Your task to perform on an android device: toggle javascript in the chrome app Image 0: 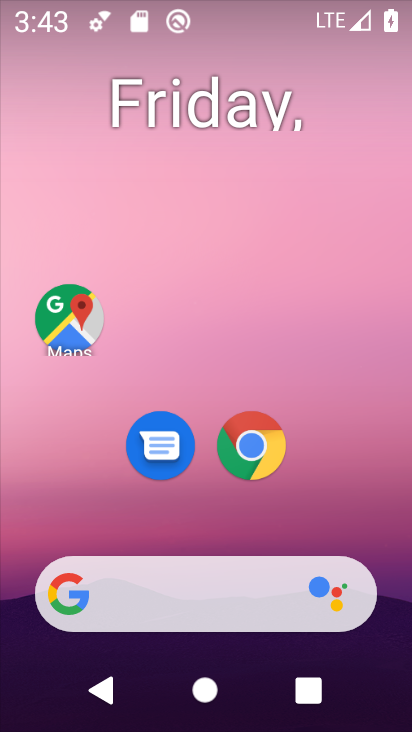
Step 0: drag from (402, 565) to (319, 170)
Your task to perform on an android device: toggle javascript in the chrome app Image 1: 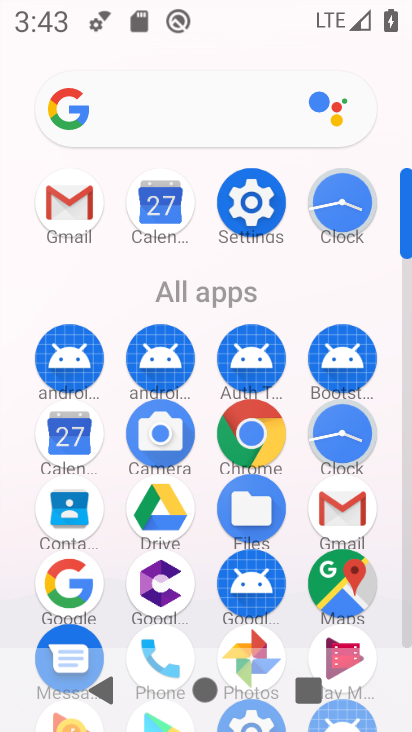
Step 1: click (258, 438)
Your task to perform on an android device: toggle javascript in the chrome app Image 2: 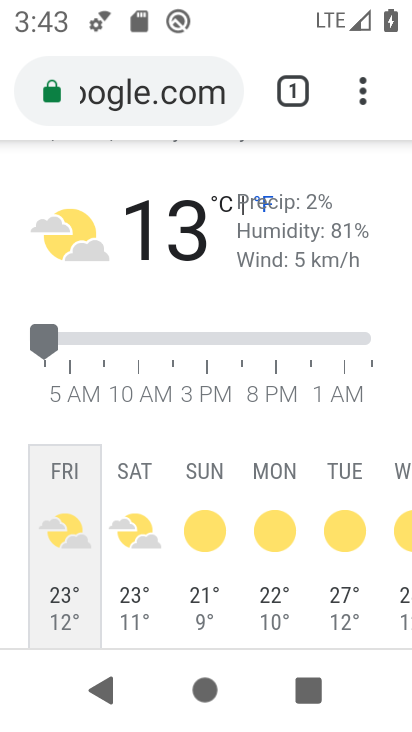
Step 2: click (363, 114)
Your task to perform on an android device: toggle javascript in the chrome app Image 3: 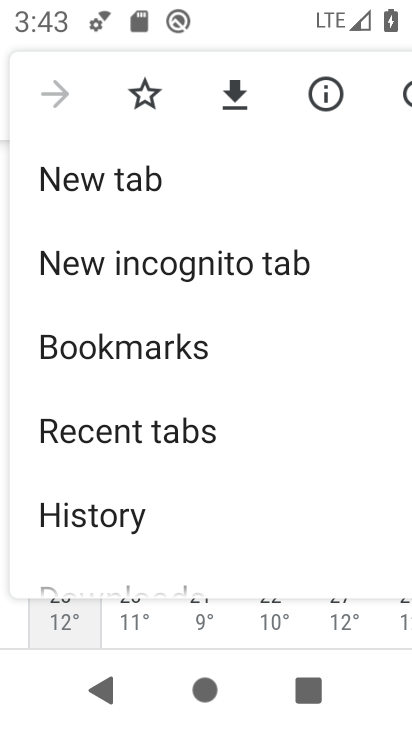
Step 3: drag from (136, 560) to (154, 143)
Your task to perform on an android device: toggle javascript in the chrome app Image 4: 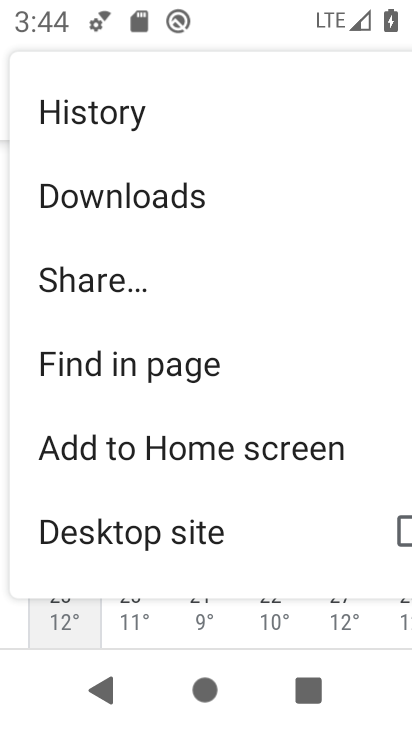
Step 4: drag from (163, 587) to (163, 193)
Your task to perform on an android device: toggle javascript in the chrome app Image 5: 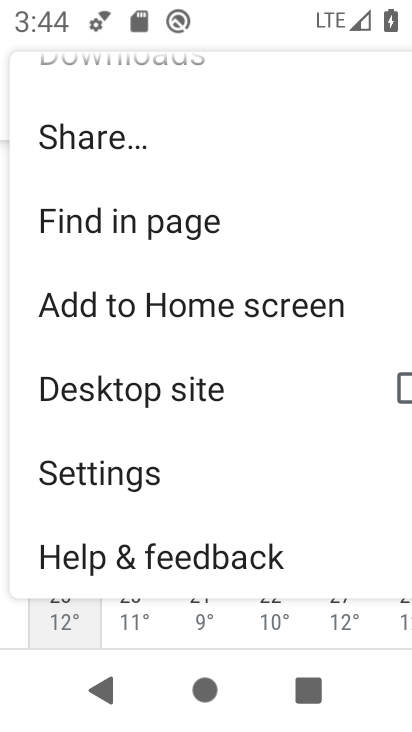
Step 5: click (167, 472)
Your task to perform on an android device: toggle javascript in the chrome app Image 6: 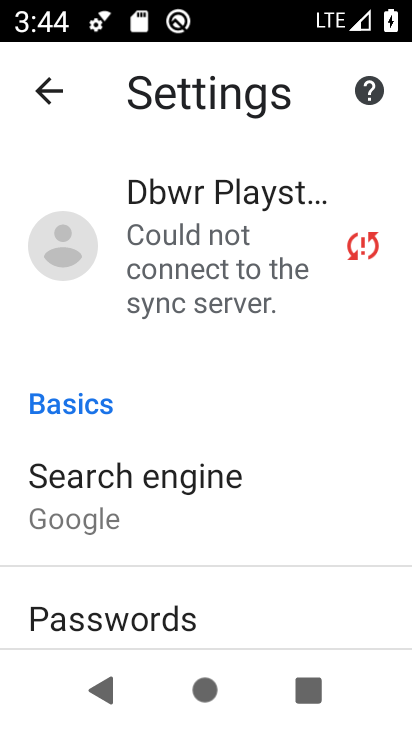
Step 6: drag from (184, 606) to (175, 210)
Your task to perform on an android device: toggle javascript in the chrome app Image 7: 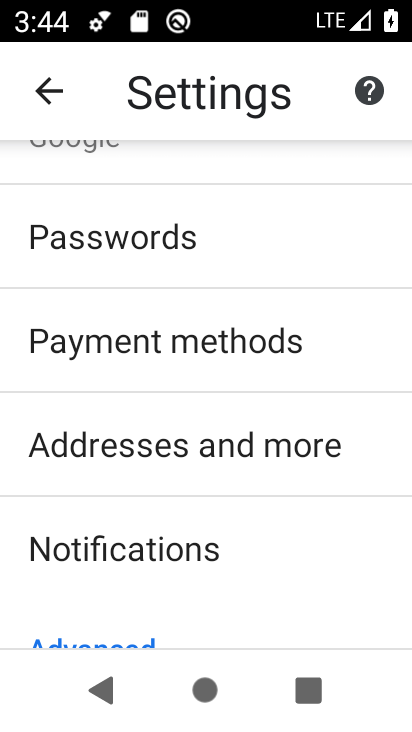
Step 7: drag from (157, 580) to (143, 217)
Your task to perform on an android device: toggle javascript in the chrome app Image 8: 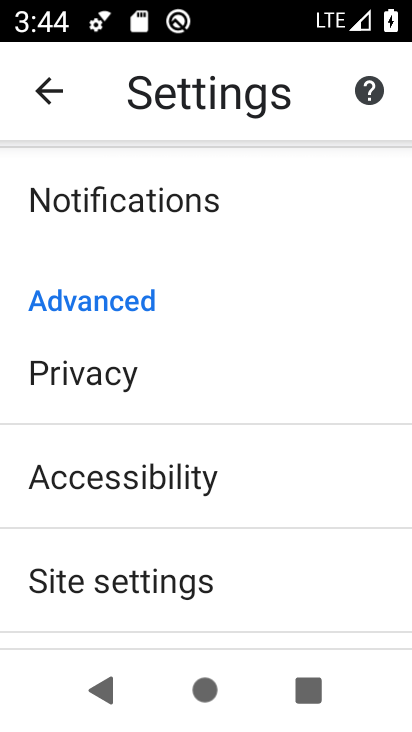
Step 8: click (153, 597)
Your task to perform on an android device: toggle javascript in the chrome app Image 9: 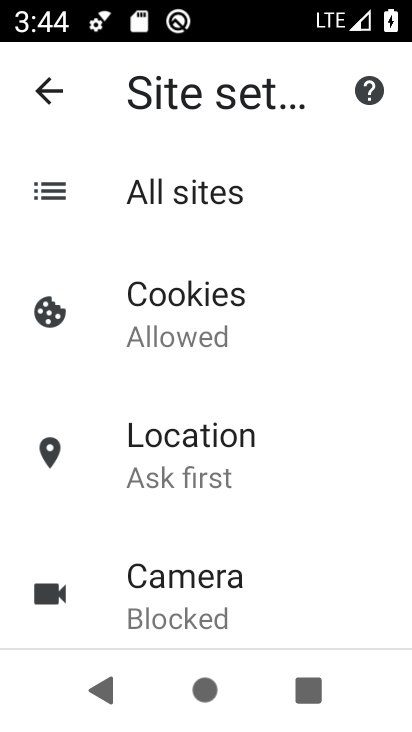
Step 9: drag from (187, 614) to (263, 236)
Your task to perform on an android device: toggle javascript in the chrome app Image 10: 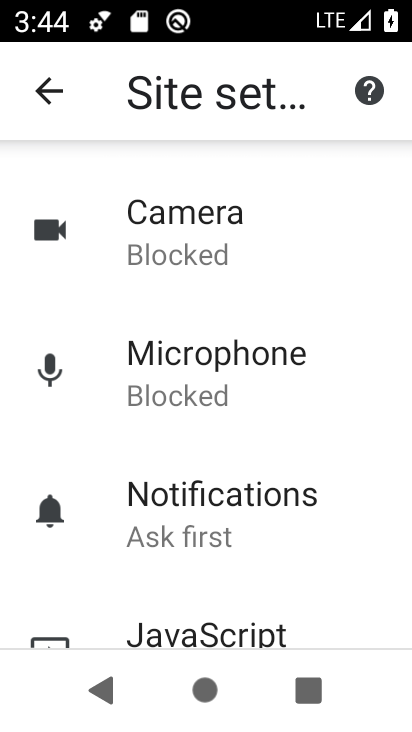
Step 10: drag from (214, 623) to (184, 416)
Your task to perform on an android device: toggle javascript in the chrome app Image 11: 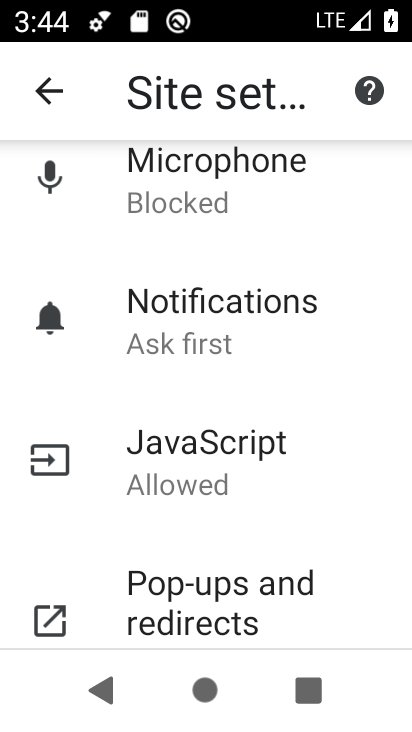
Step 11: click (200, 484)
Your task to perform on an android device: toggle javascript in the chrome app Image 12: 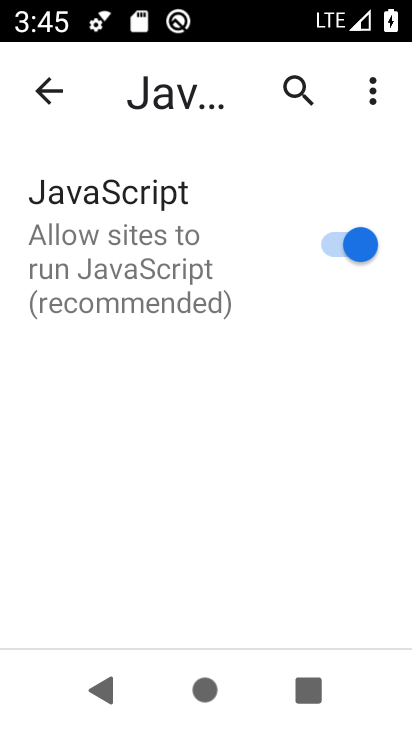
Step 12: task complete